Your task to perform on an android device: Show me the alarms in the clock app Image 0: 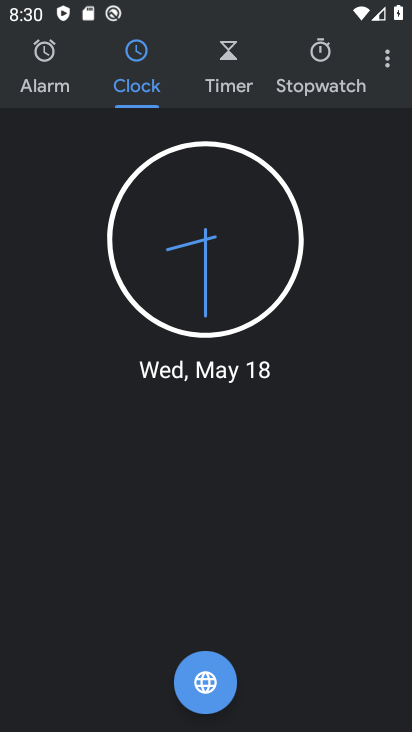
Step 0: press home button
Your task to perform on an android device: Show me the alarms in the clock app Image 1: 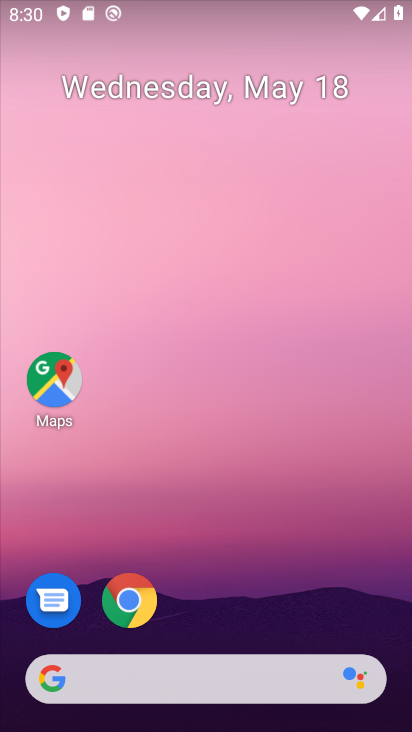
Step 1: drag from (50, 476) to (188, 173)
Your task to perform on an android device: Show me the alarms in the clock app Image 2: 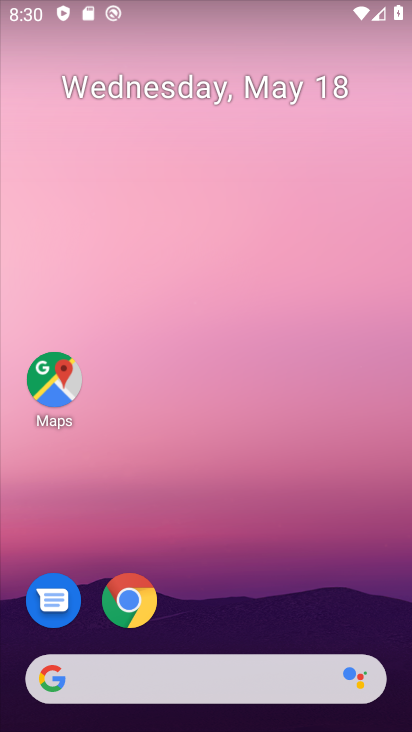
Step 2: drag from (21, 546) to (164, 192)
Your task to perform on an android device: Show me the alarms in the clock app Image 3: 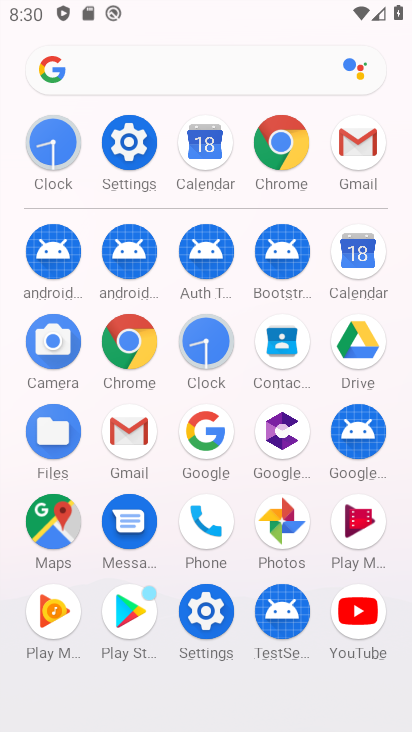
Step 3: click (203, 340)
Your task to perform on an android device: Show me the alarms in the clock app Image 4: 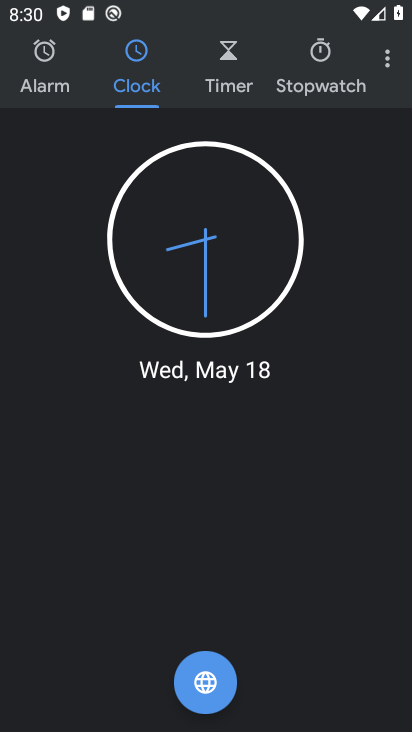
Step 4: click (37, 71)
Your task to perform on an android device: Show me the alarms in the clock app Image 5: 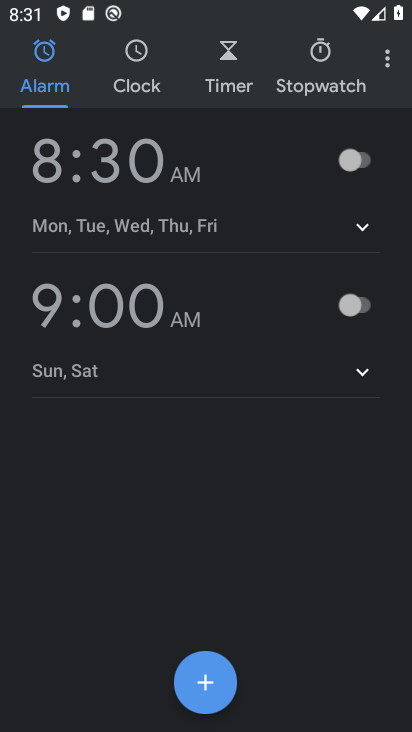
Step 5: task complete